Your task to perform on an android device: Open the map Image 0: 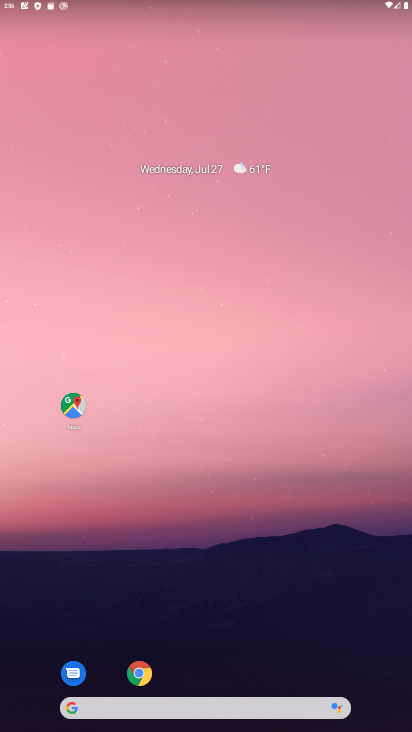
Step 0: click (66, 413)
Your task to perform on an android device: Open the map Image 1: 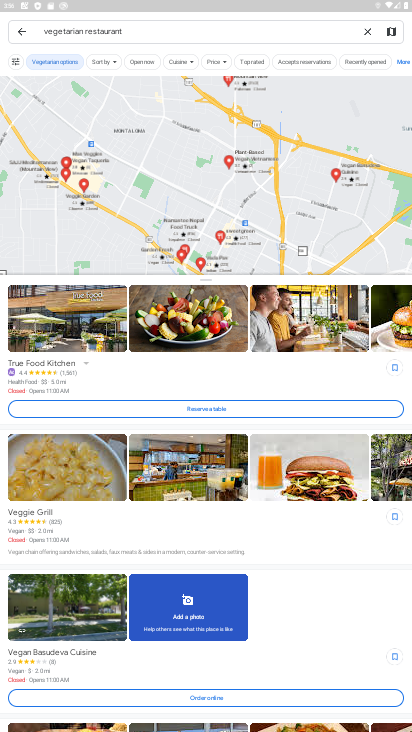
Step 1: task complete